Your task to perform on an android device: change alarm snooze length Image 0: 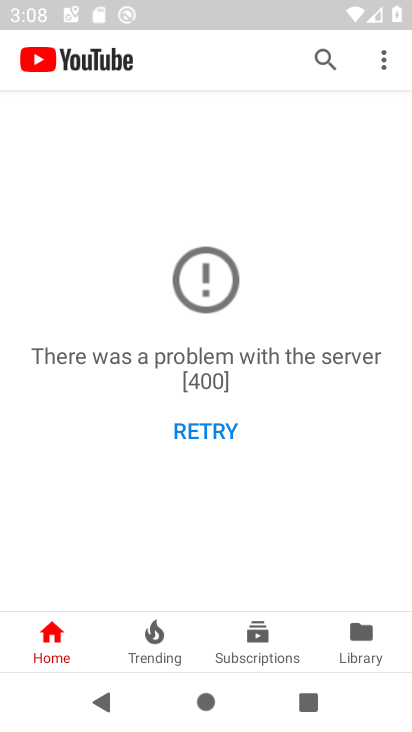
Step 0: press home button
Your task to perform on an android device: change alarm snooze length Image 1: 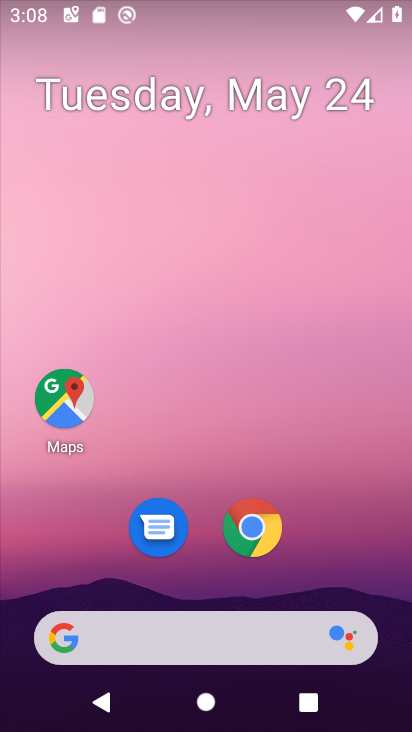
Step 1: drag from (326, 590) to (385, 42)
Your task to perform on an android device: change alarm snooze length Image 2: 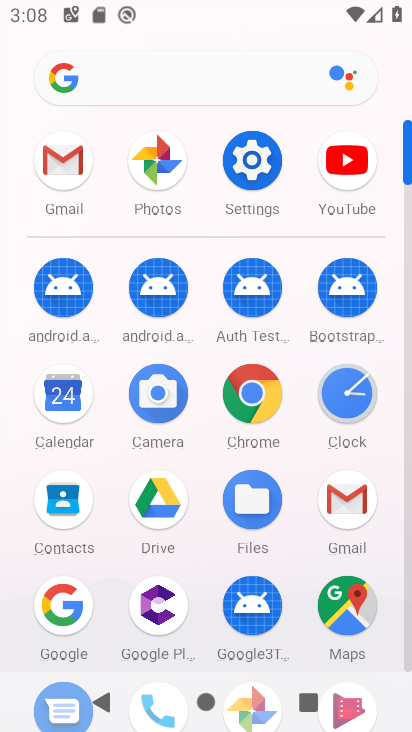
Step 2: click (349, 399)
Your task to perform on an android device: change alarm snooze length Image 3: 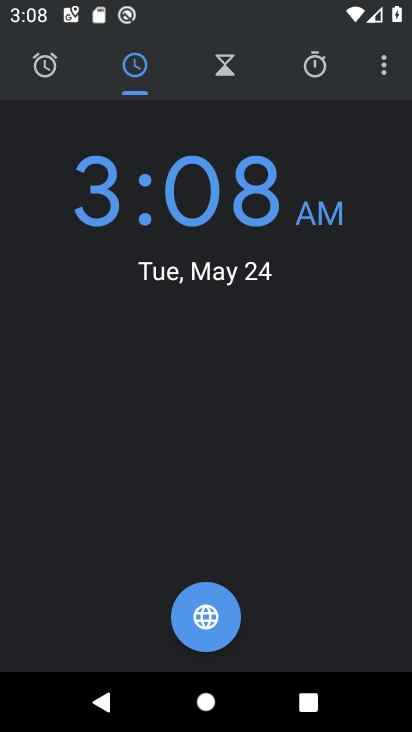
Step 3: click (384, 67)
Your task to perform on an android device: change alarm snooze length Image 4: 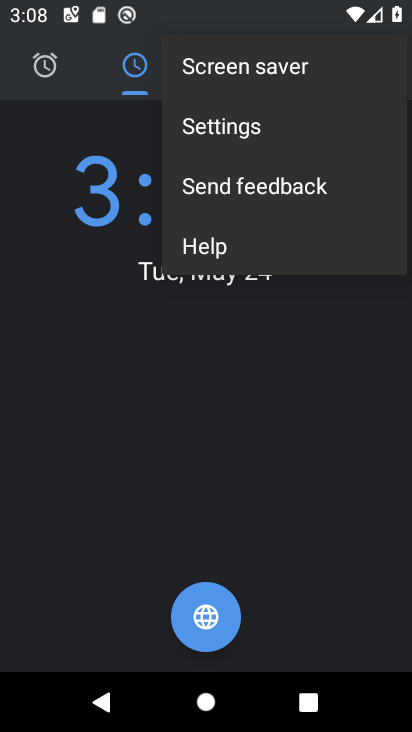
Step 4: click (237, 134)
Your task to perform on an android device: change alarm snooze length Image 5: 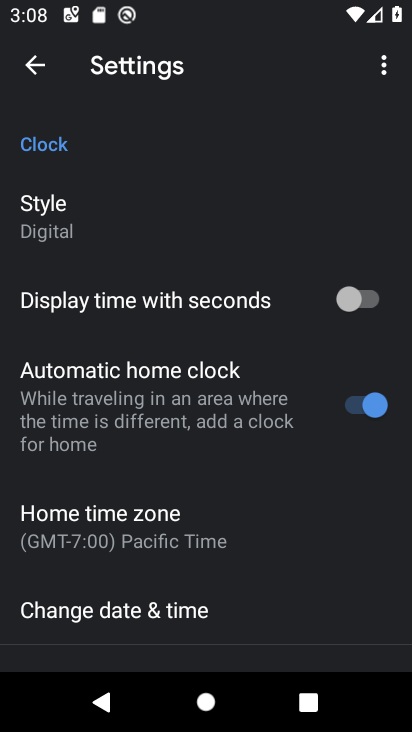
Step 5: drag from (222, 530) to (227, 208)
Your task to perform on an android device: change alarm snooze length Image 6: 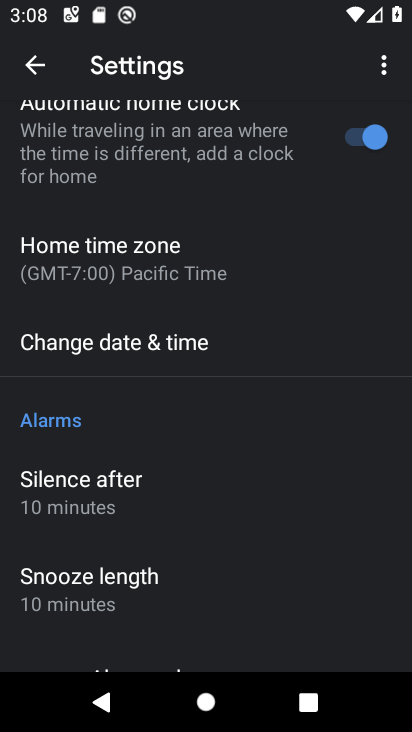
Step 6: drag from (189, 482) to (192, 285)
Your task to perform on an android device: change alarm snooze length Image 7: 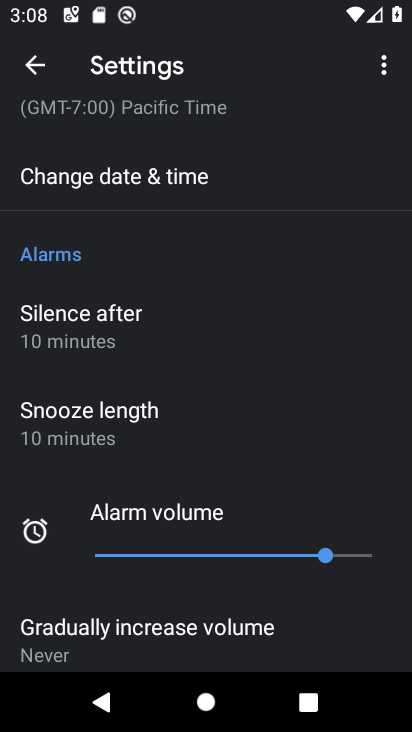
Step 7: click (84, 431)
Your task to perform on an android device: change alarm snooze length Image 8: 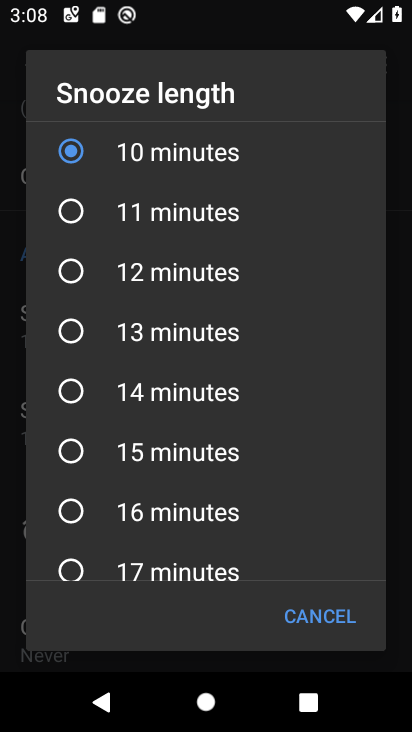
Step 8: click (80, 282)
Your task to perform on an android device: change alarm snooze length Image 9: 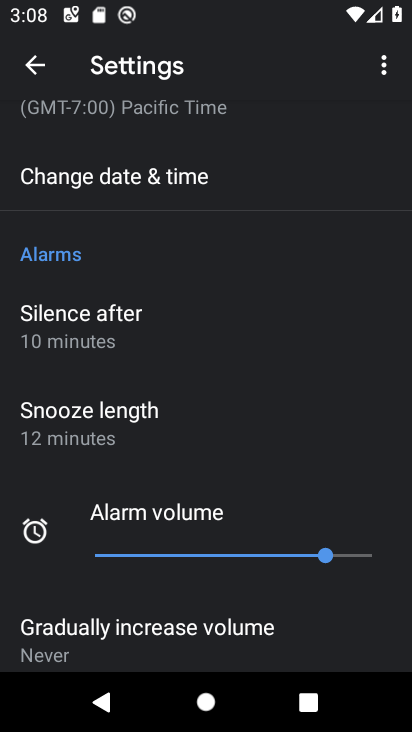
Step 9: task complete